Your task to perform on an android device: Clear all items from cart on walmart.com. Add "alienware area 51" to the cart on walmart.com, then select checkout. Image 0: 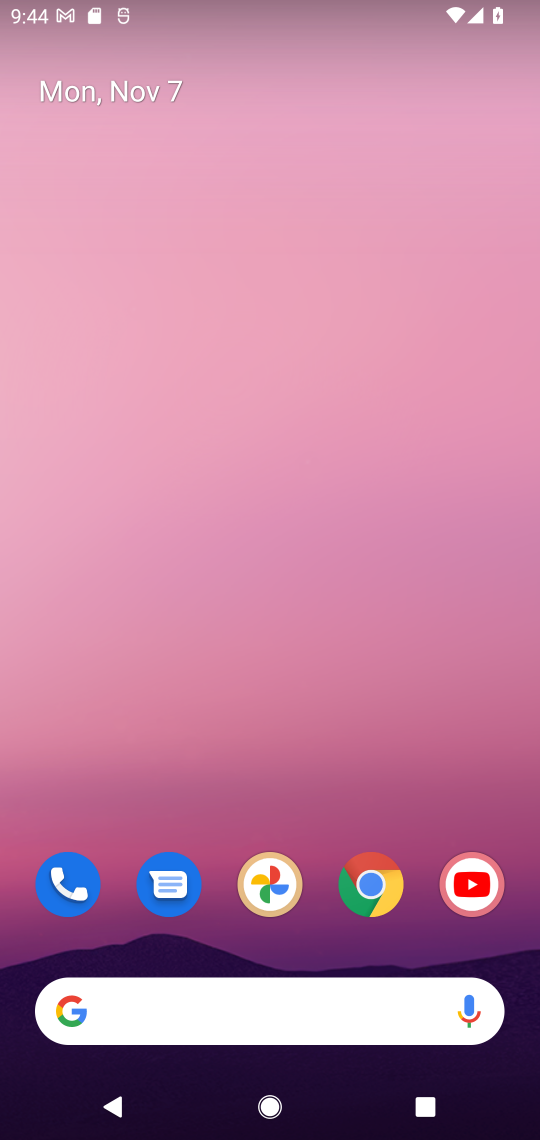
Step 0: click (364, 870)
Your task to perform on an android device: Clear all items from cart on walmart.com. Add "alienware area 51" to the cart on walmart.com, then select checkout. Image 1: 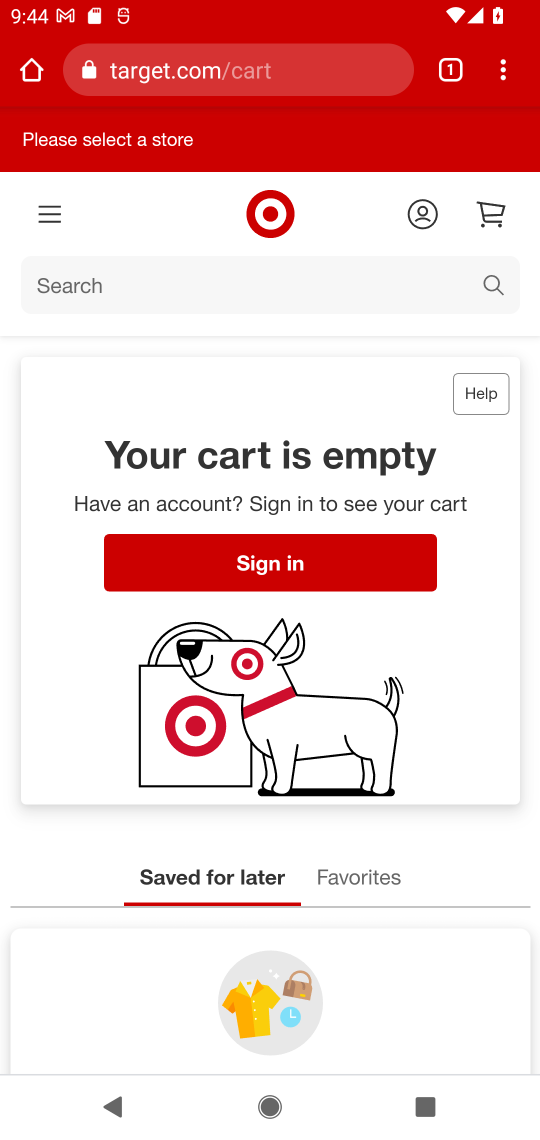
Step 1: click (336, 56)
Your task to perform on an android device: Clear all items from cart on walmart.com. Add "alienware area 51" to the cart on walmart.com, then select checkout. Image 2: 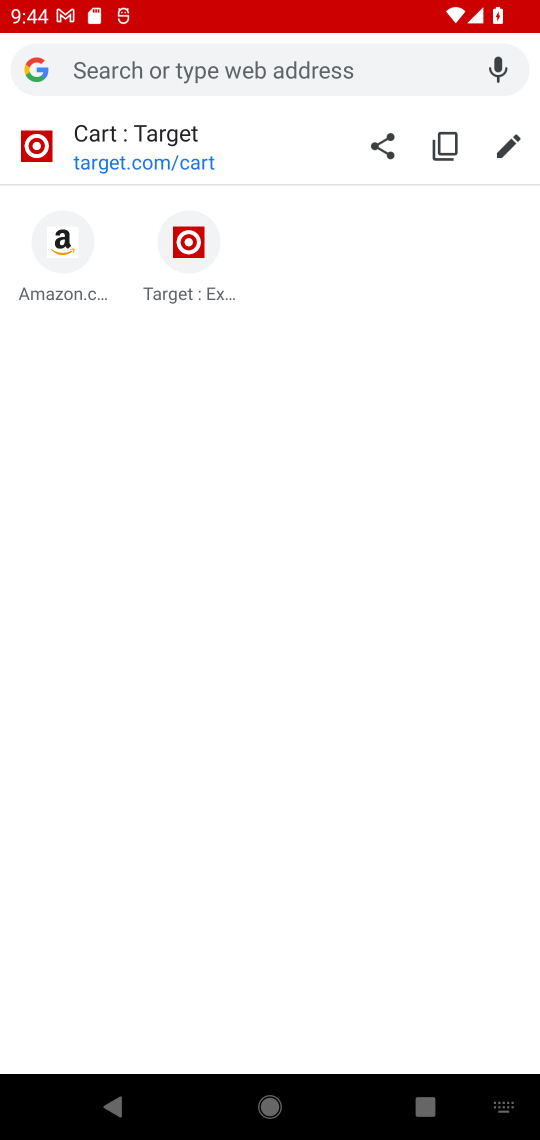
Step 2: type " walmart.com"
Your task to perform on an android device: Clear all items from cart on walmart.com. Add "alienware area 51" to the cart on walmart.com, then select checkout. Image 3: 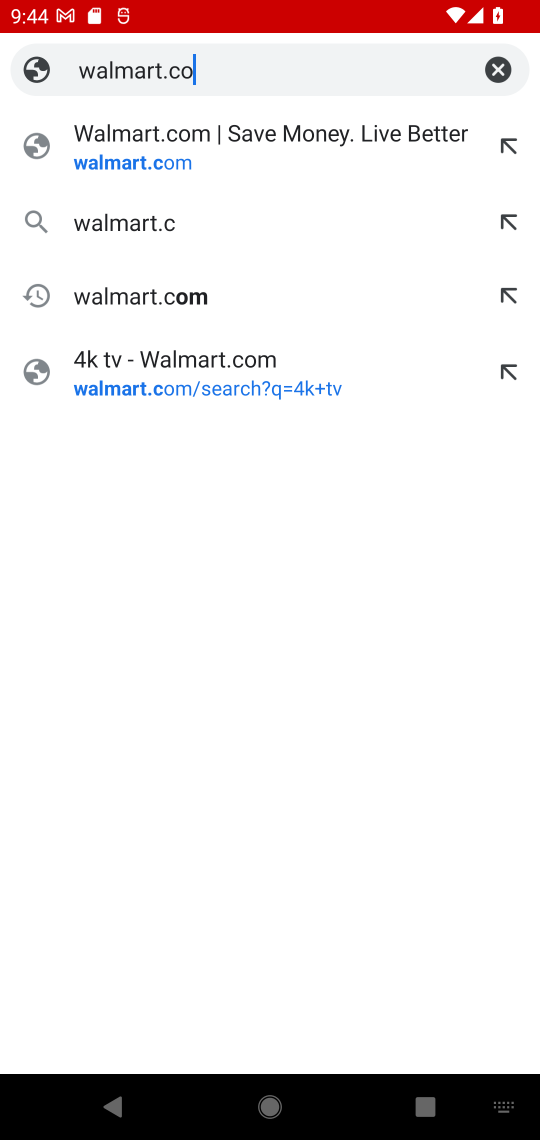
Step 3: press enter
Your task to perform on an android device: Clear all items from cart on walmart.com. Add "alienware area 51" to the cart on walmart.com, then select checkout. Image 4: 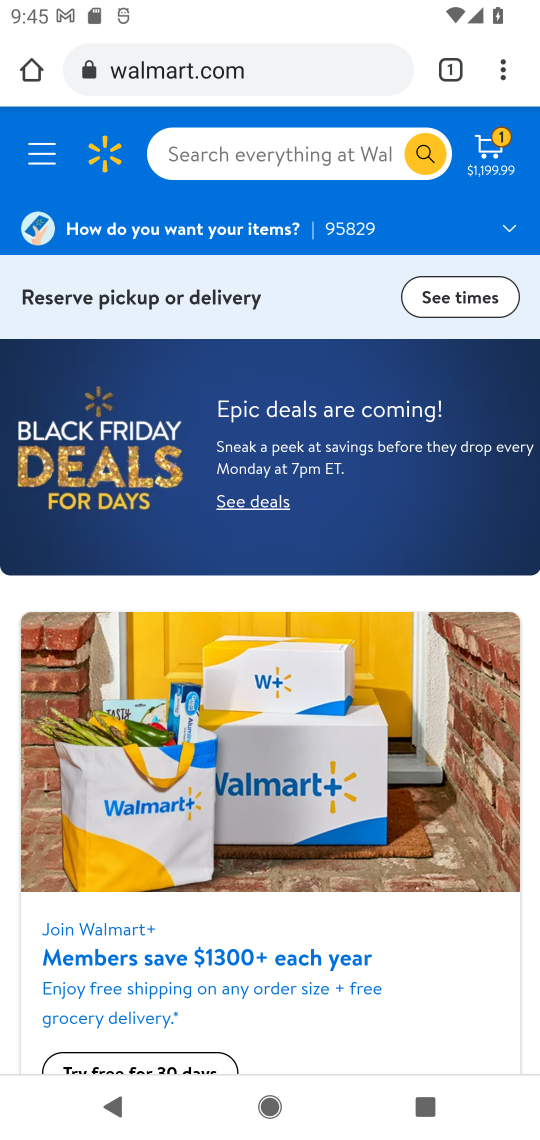
Step 4: click (475, 160)
Your task to perform on an android device: Clear all items from cart on walmart.com. Add "alienware area 51" to the cart on walmart.com, then select checkout. Image 5: 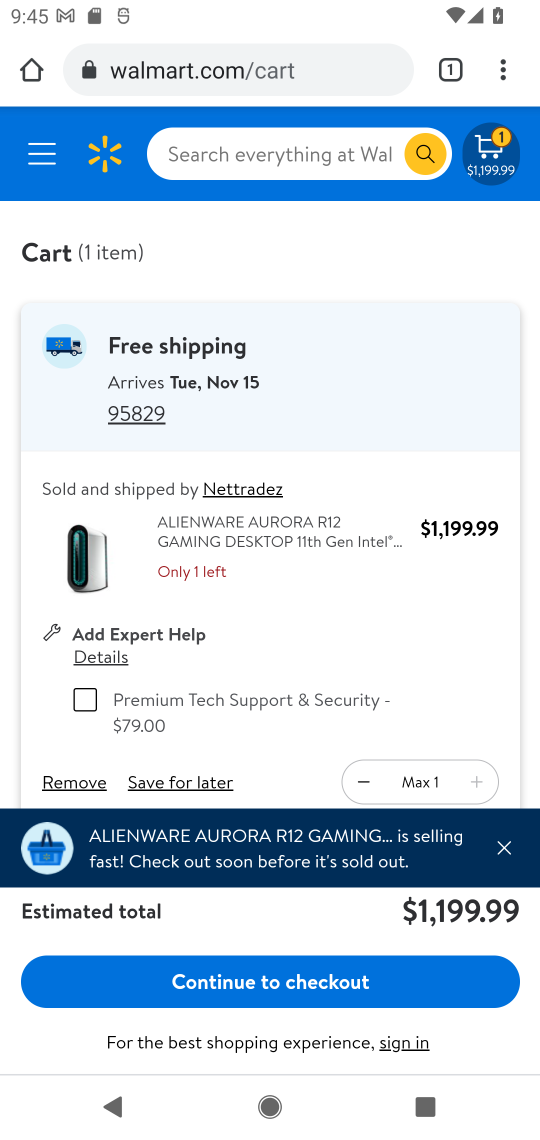
Step 5: click (506, 856)
Your task to perform on an android device: Clear all items from cart on walmart.com. Add "alienware area 51" to the cart on walmart.com, then select checkout. Image 6: 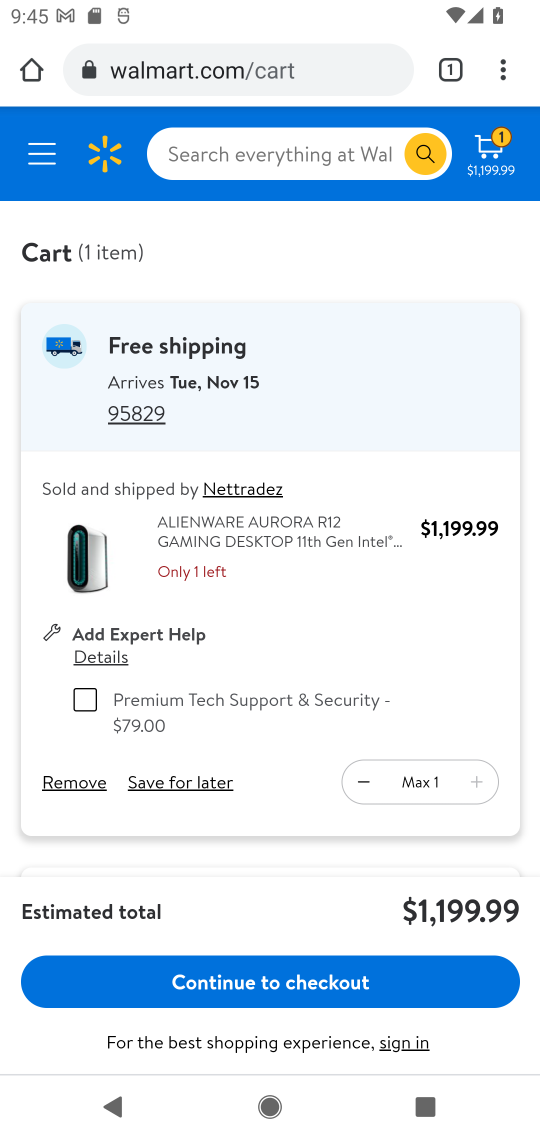
Step 6: click (74, 782)
Your task to perform on an android device: Clear all items from cart on walmart.com. Add "alienware area 51" to the cart on walmart.com, then select checkout. Image 7: 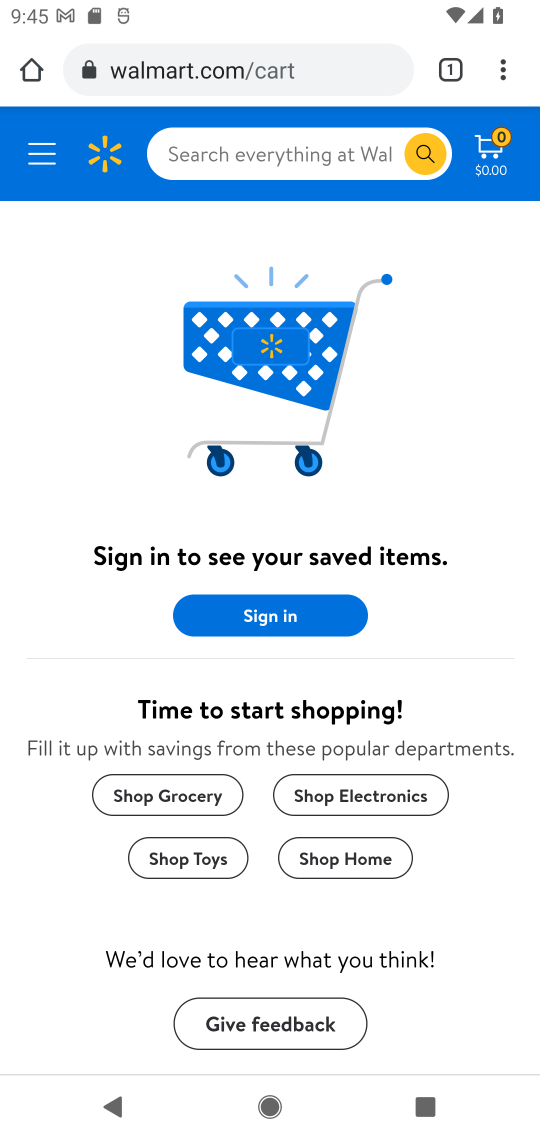
Step 7: click (271, 149)
Your task to perform on an android device: Clear all items from cart on walmart.com. Add "alienware area 51" to the cart on walmart.com, then select checkout. Image 8: 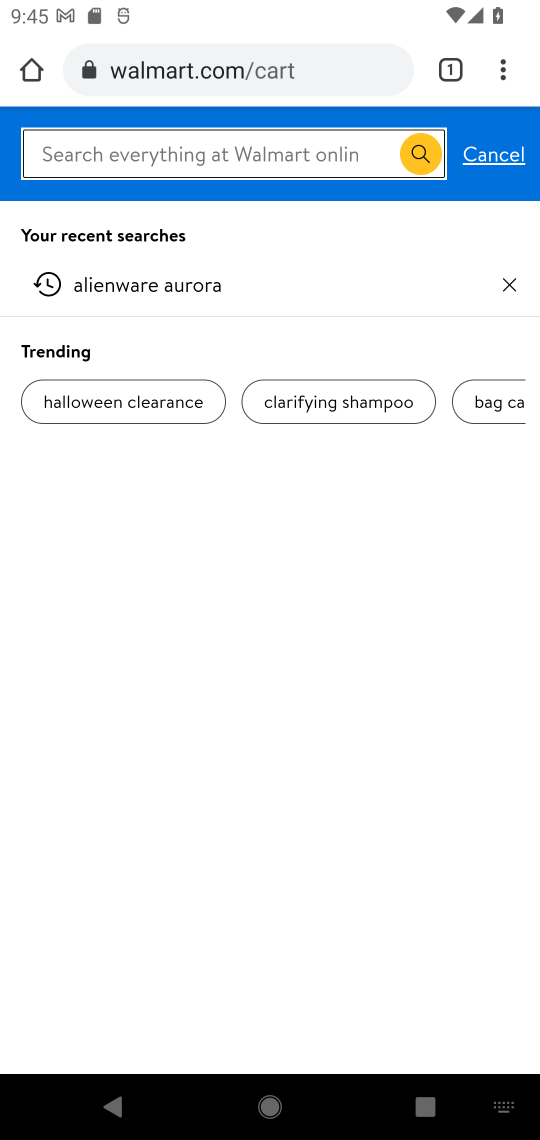
Step 8: type "alienware area 51"
Your task to perform on an android device: Clear all items from cart on walmart.com. Add "alienware area 51" to the cart on walmart.com, then select checkout. Image 9: 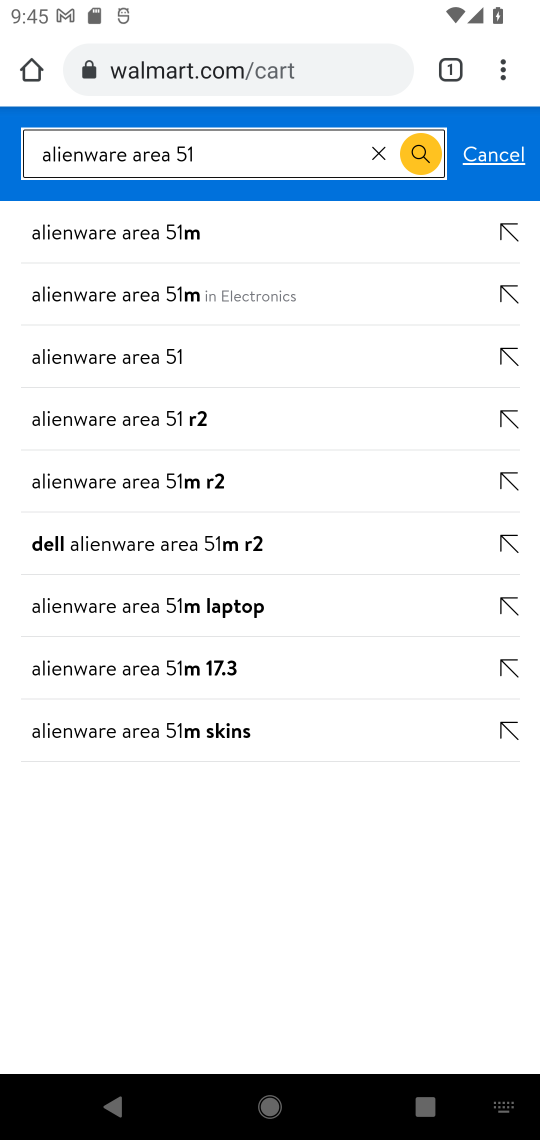
Step 9: click (155, 361)
Your task to perform on an android device: Clear all items from cart on walmart.com. Add "alienware area 51" to the cart on walmart.com, then select checkout. Image 10: 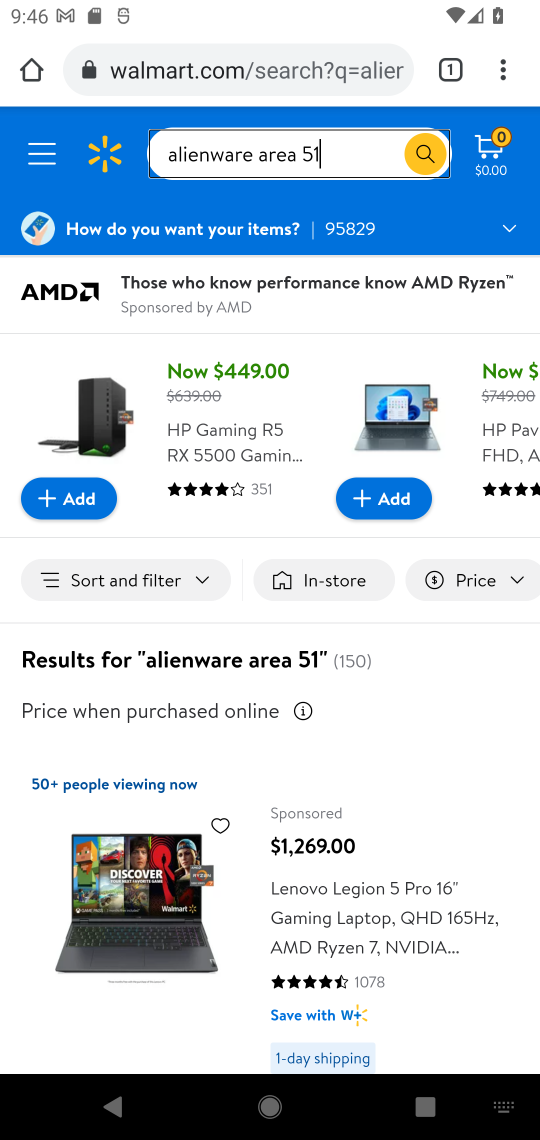
Step 10: drag from (409, 907) to (449, 467)
Your task to perform on an android device: Clear all items from cart on walmart.com. Add "alienware area 51" to the cart on walmart.com, then select checkout. Image 11: 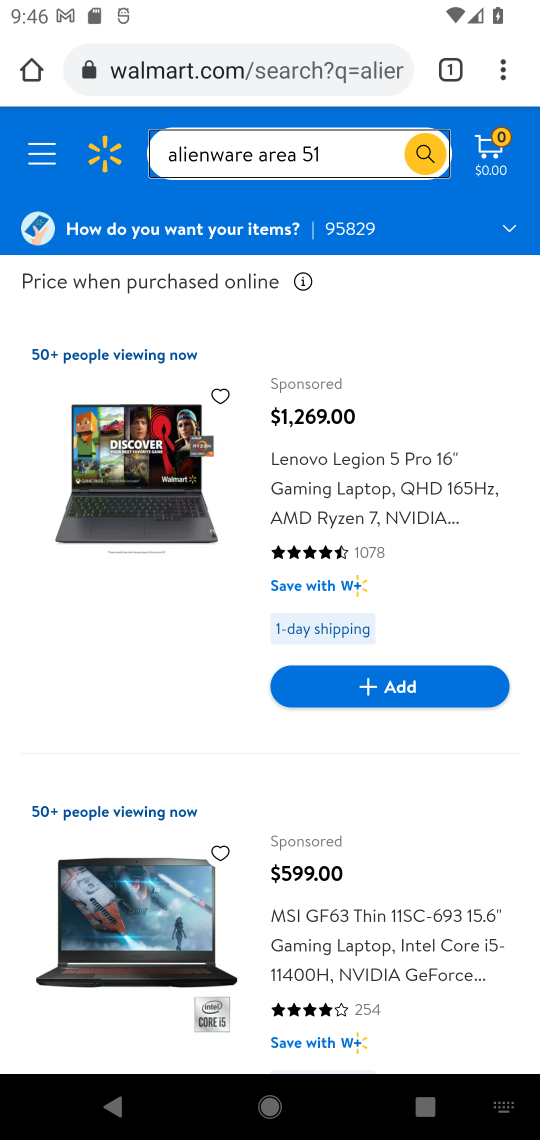
Step 11: drag from (464, 893) to (460, 659)
Your task to perform on an android device: Clear all items from cart on walmart.com. Add "alienware area 51" to the cart on walmart.com, then select checkout. Image 12: 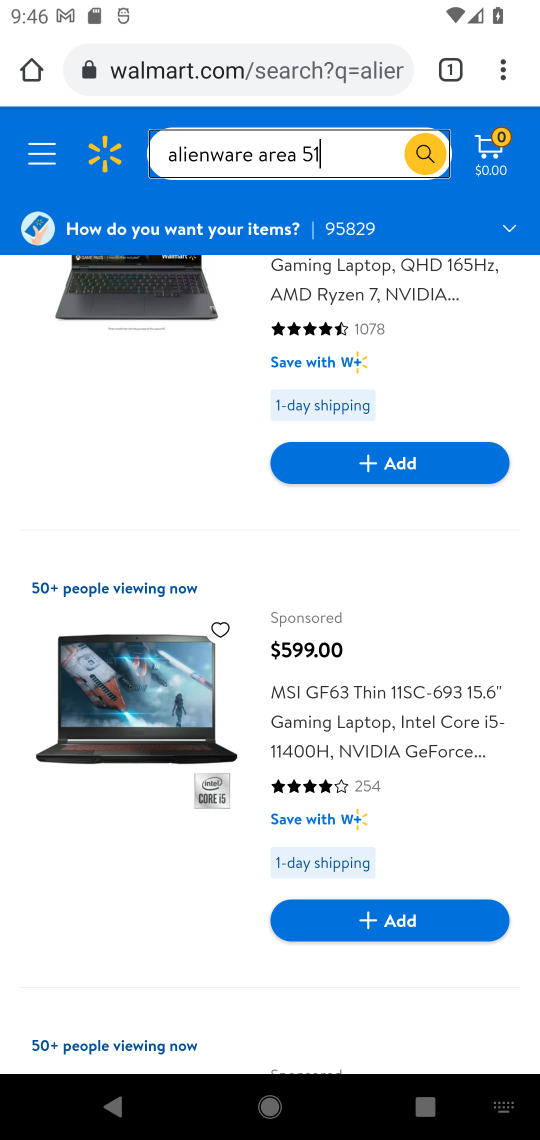
Step 12: drag from (409, 644) to (484, 880)
Your task to perform on an android device: Clear all items from cart on walmart.com. Add "alienware area 51" to the cart on walmart.com, then select checkout. Image 13: 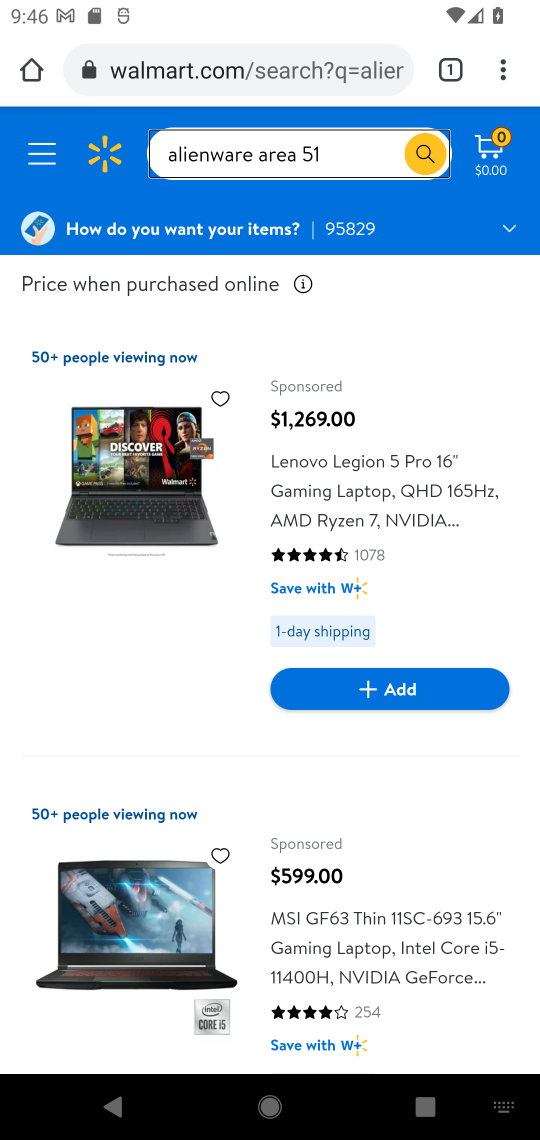
Step 13: drag from (433, 825) to (375, 341)
Your task to perform on an android device: Clear all items from cart on walmart.com. Add "alienware area 51" to the cart on walmart.com, then select checkout. Image 14: 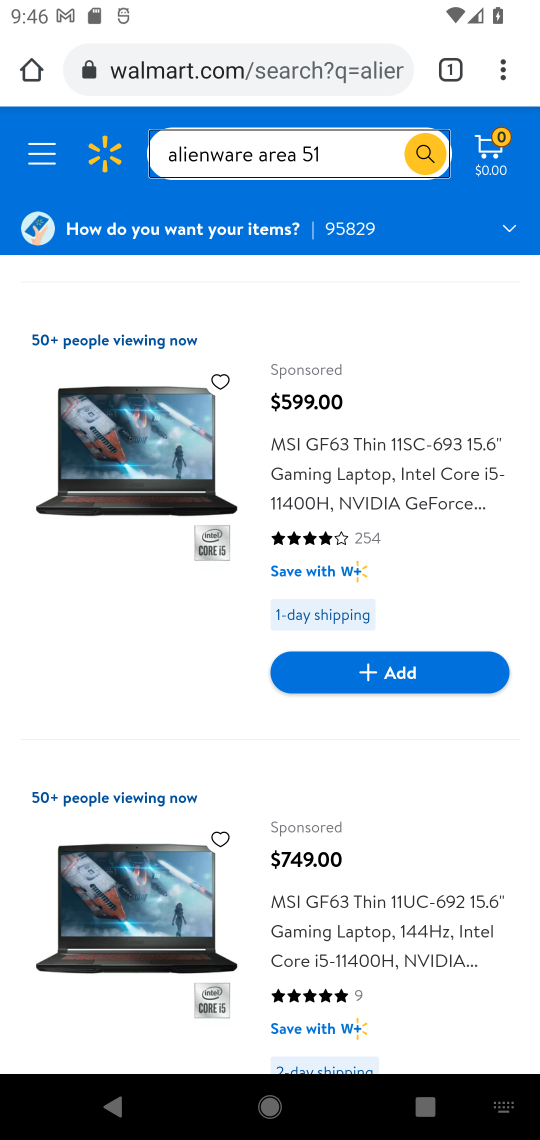
Step 14: drag from (454, 939) to (391, 491)
Your task to perform on an android device: Clear all items from cart on walmart.com. Add "alienware area 51" to the cart on walmart.com, then select checkout. Image 15: 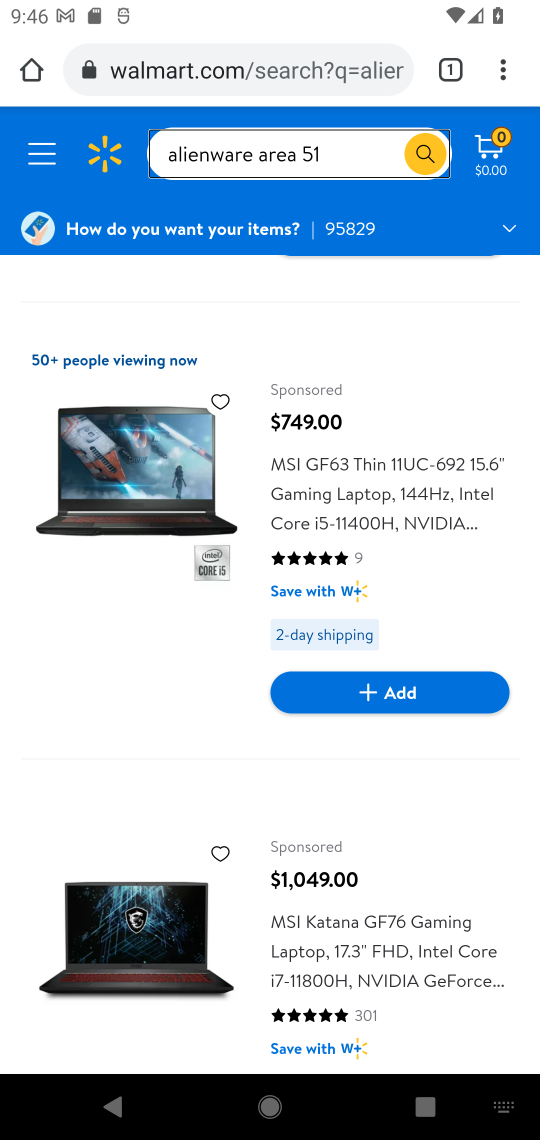
Step 15: drag from (418, 983) to (378, 563)
Your task to perform on an android device: Clear all items from cart on walmart.com. Add "alienware area 51" to the cart on walmart.com, then select checkout. Image 16: 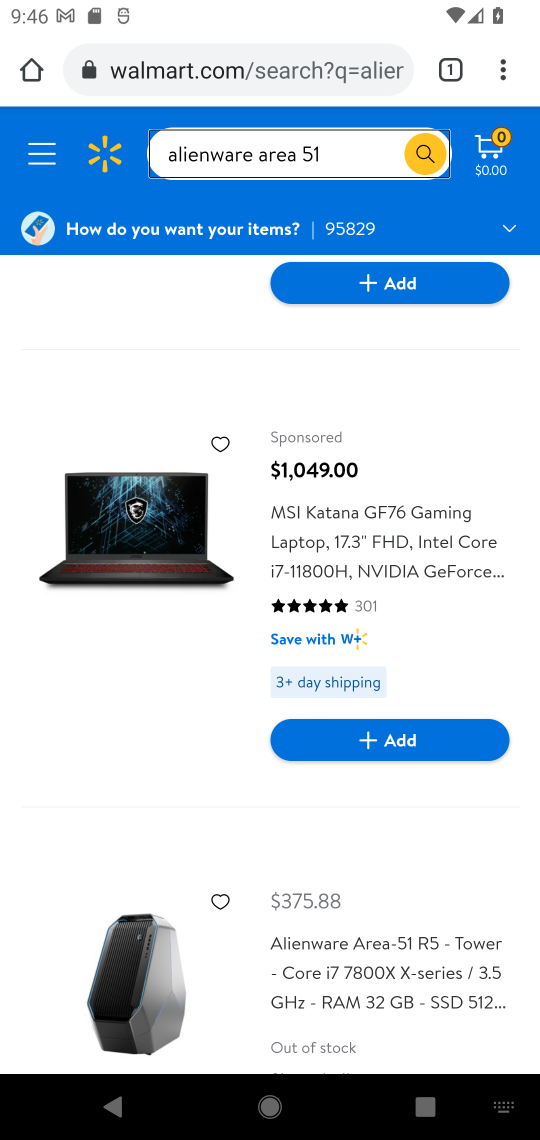
Step 16: click (128, 970)
Your task to perform on an android device: Clear all items from cart on walmart.com. Add "alienware area 51" to the cart on walmart.com, then select checkout. Image 17: 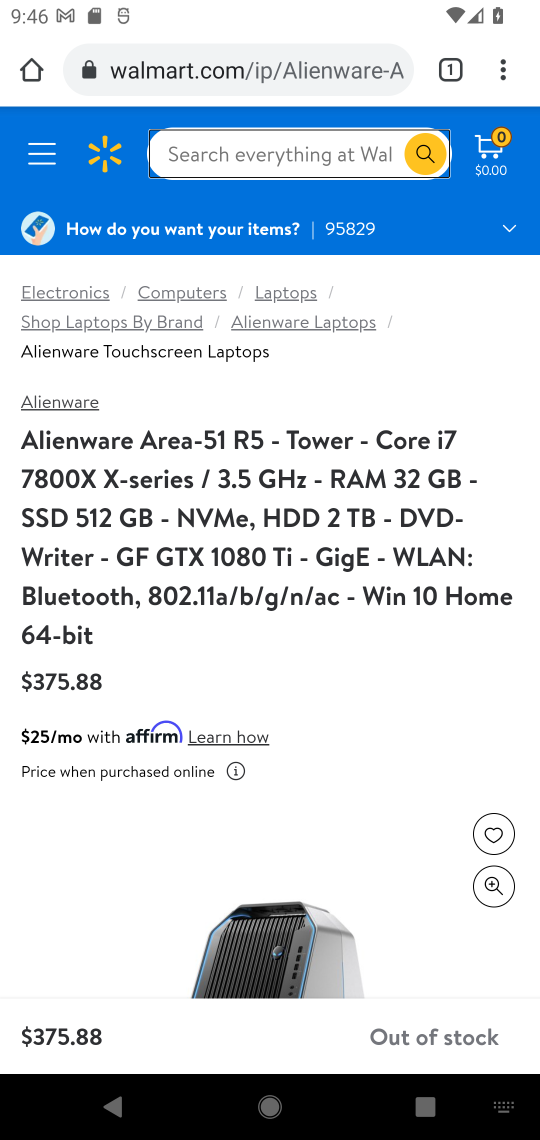
Step 17: drag from (404, 763) to (360, 336)
Your task to perform on an android device: Clear all items from cart on walmart.com. Add "alienware area 51" to the cart on walmart.com, then select checkout. Image 18: 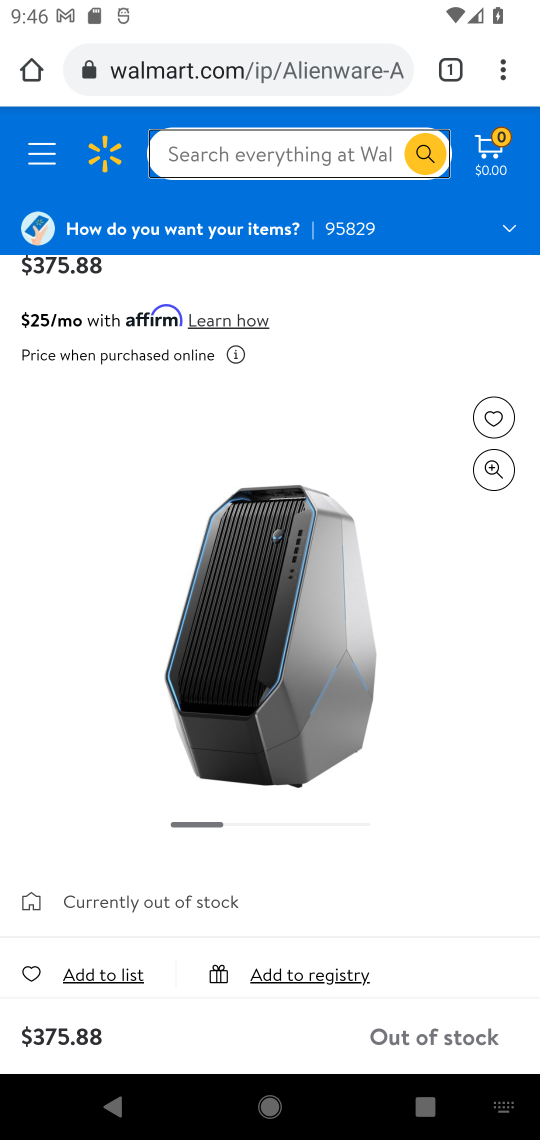
Step 18: drag from (376, 865) to (344, 396)
Your task to perform on an android device: Clear all items from cart on walmart.com. Add "alienware area 51" to the cart on walmart.com, then select checkout. Image 19: 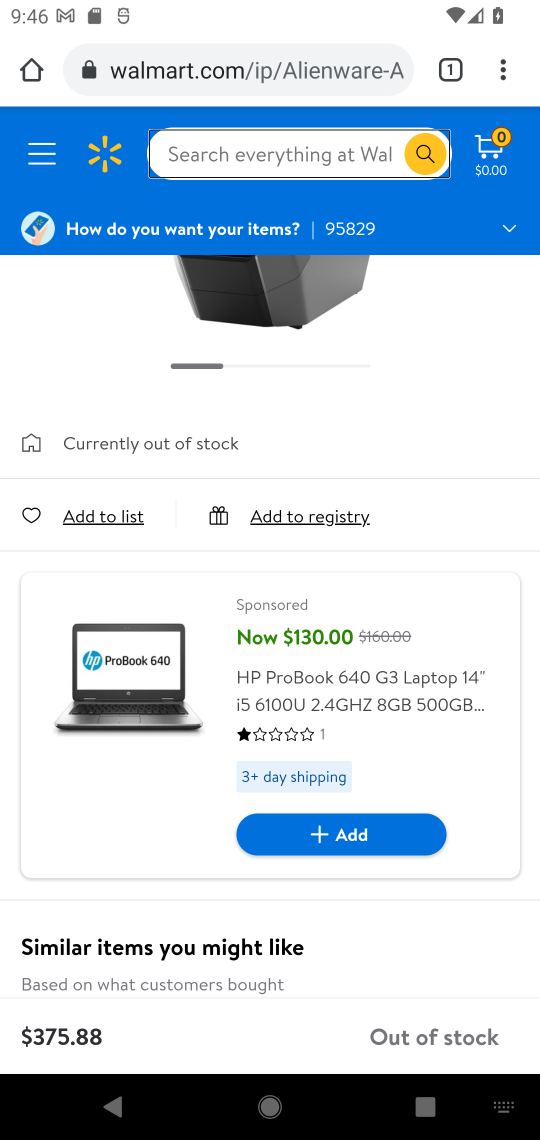
Step 19: drag from (479, 741) to (480, 460)
Your task to perform on an android device: Clear all items from cart on walmart.com. Add "alienware area 51" to the cart on walmart.com, then select checkout. Image 20: 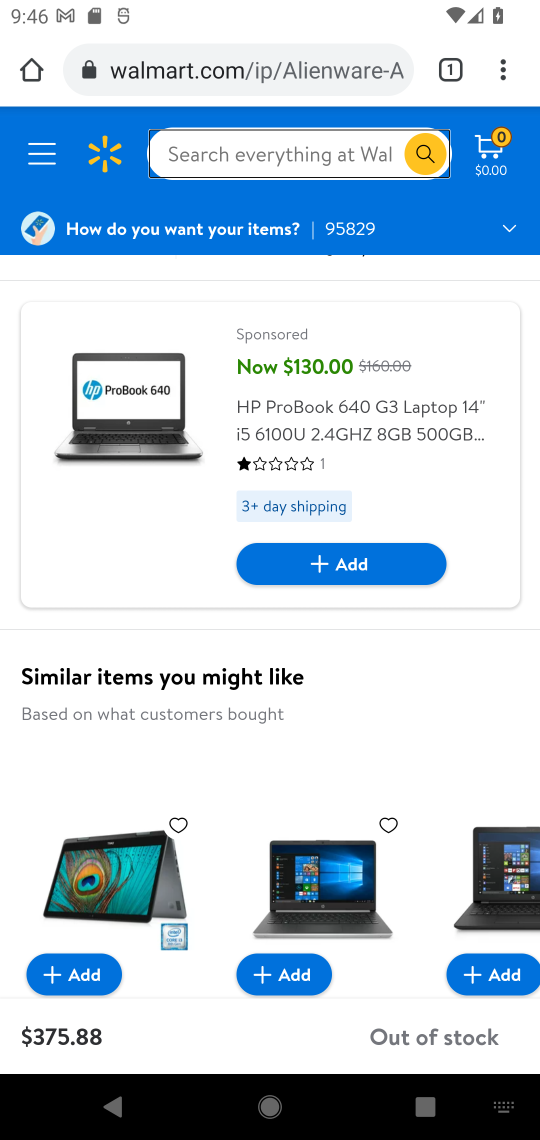
Step 20: press back button
Your task to perform on an android device: Clear all items from cart on walmart.com. Add "alienware area 51" to the cart on walmart.com, then select checkout. Image 21: 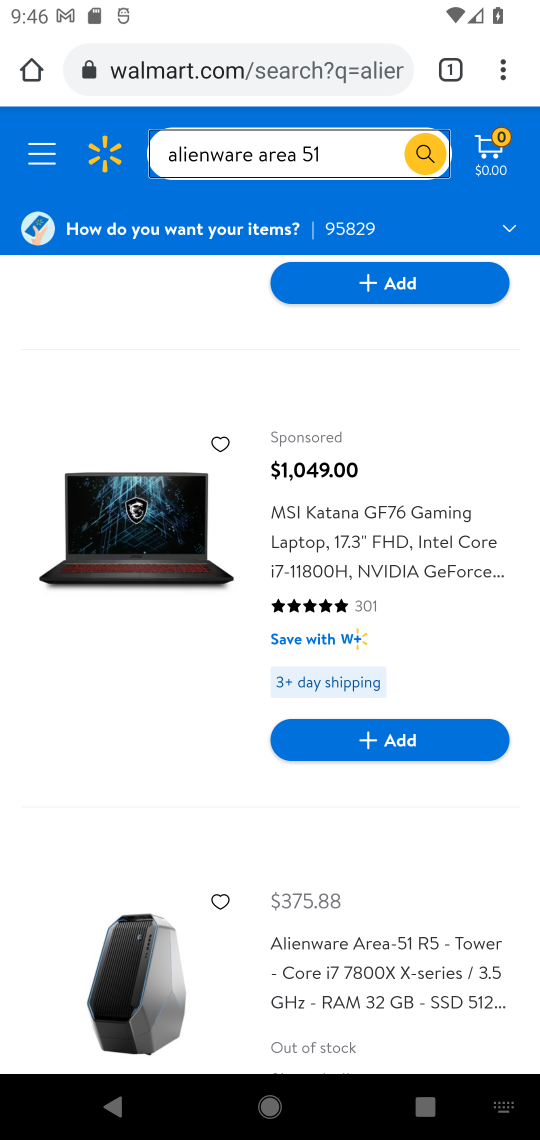
Step 21: drag from (387, 913) to (387, 548)
Your task to perform on an android device: Clear all items from cart on walmart.com. Add "alienware area 51" to the cart on walmart.com, then select checkout. Image 22: 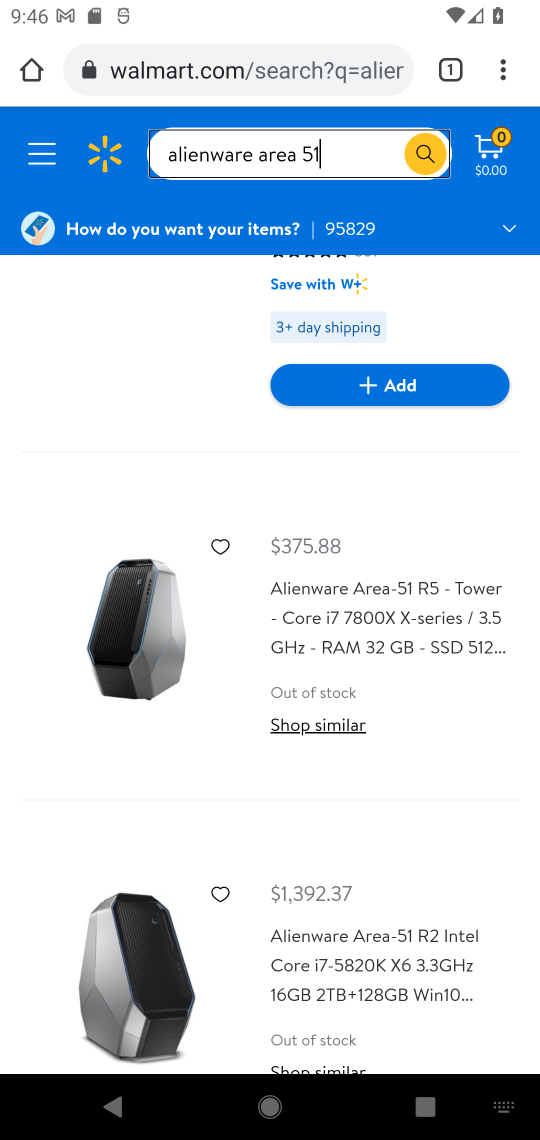
Step 22: click (146, 593)
Your task to perform on an android device: Clear all items from cart on walmart.com. Add "alienware area 51" to the cart on walmart.com, then select checkout. Image 23: 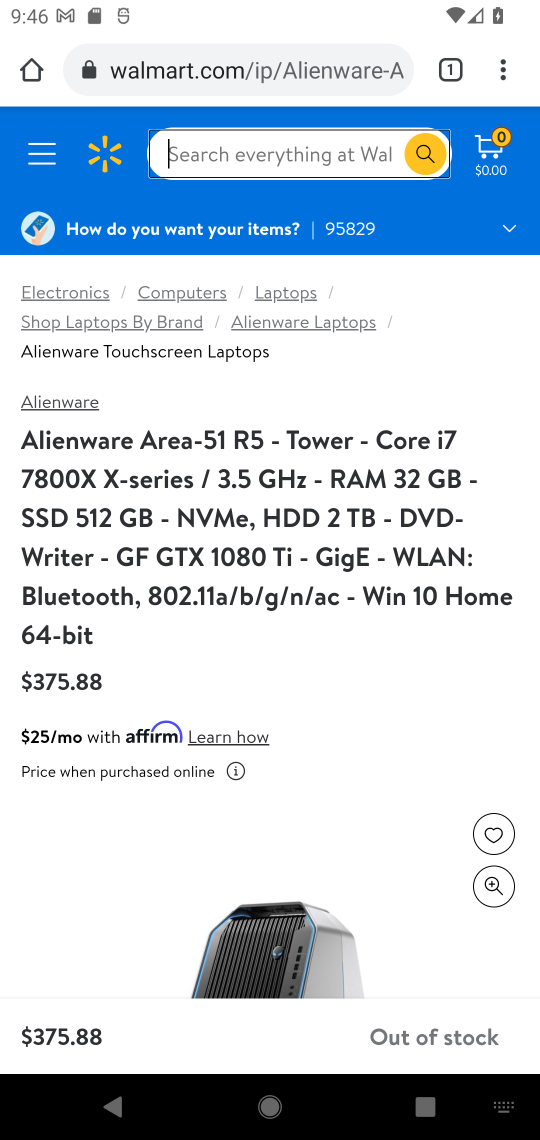
Step 23: drag from (387, 766) to (407, 378)
Your task to perform on an android device: Clear all items from cart on walmart.com. Add "alienware area 51" to the cart on walmart.com, then select checkout. Image 24: 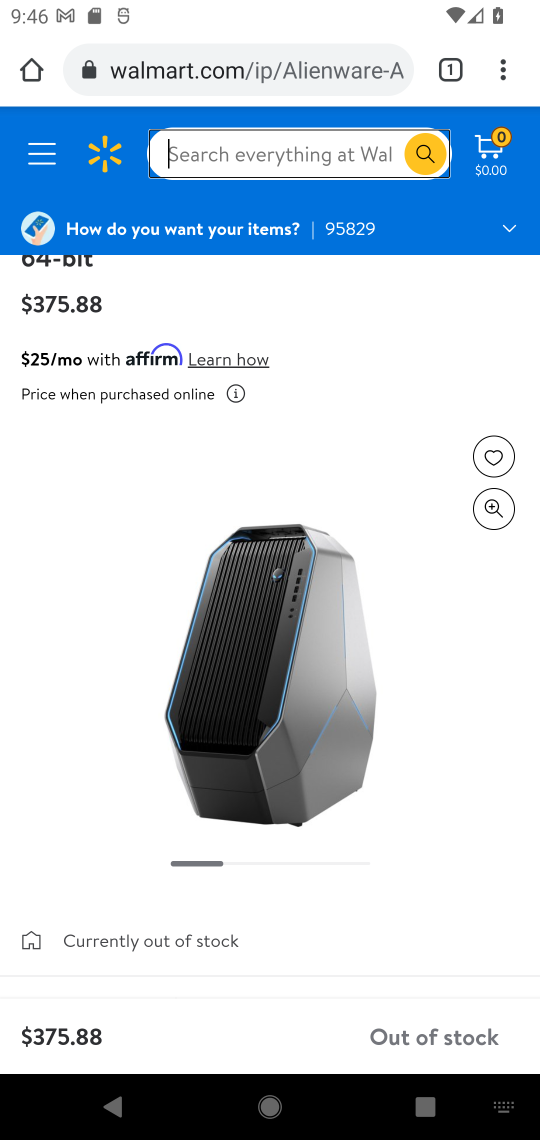
Step 24: drag from (405, 751) to (409, 326)
Your task to perform on an android device: Clear all items from cart on walmart.com. Add "alienware area 51" to the cart on walmart.com, then select checkout. Image 25: 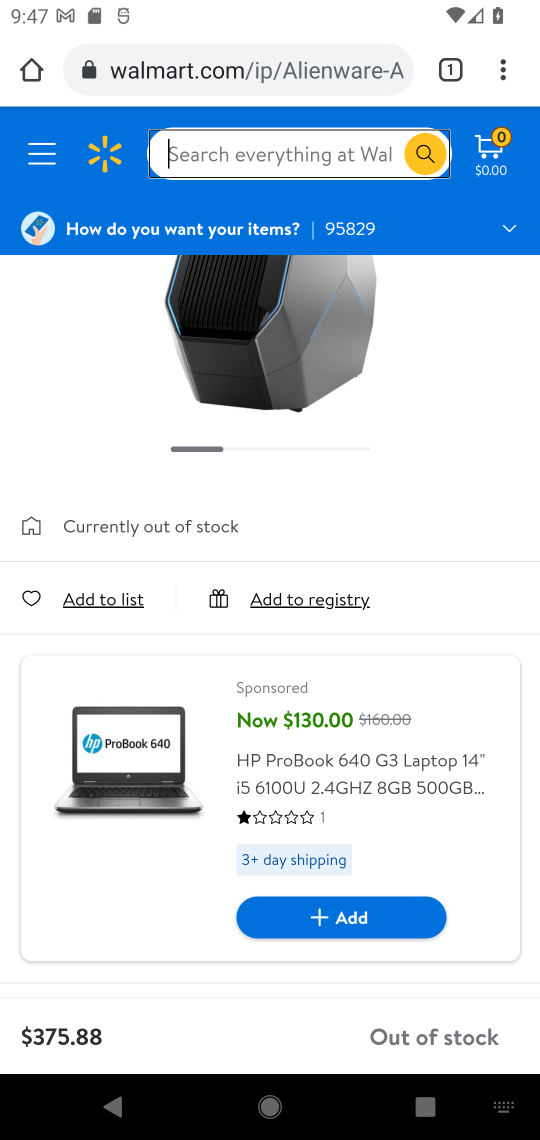
Step 25: press back button
Your task to perform on an android device: Clear all items from cart on walmart.com. Add "alienware area 51" to the cart on walmart.com, then select checkout. Image 26: 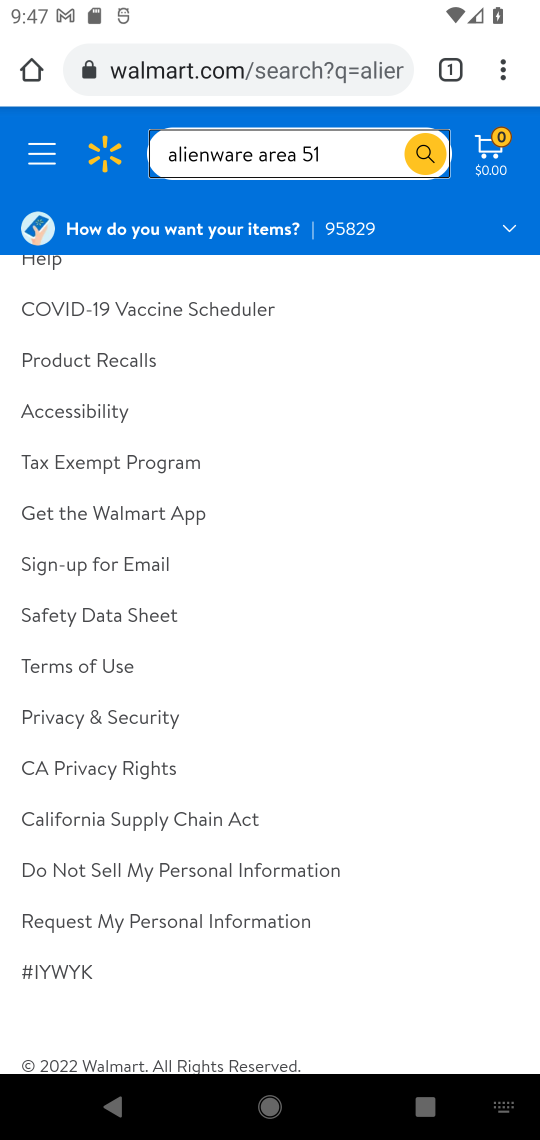
Step 26: click (345, 155)
Your task to perform on an android device: Clear all items from cart on walmart.com. Add "alienware area 51" to the cart on walmart.com, then select checkout. Image 27: 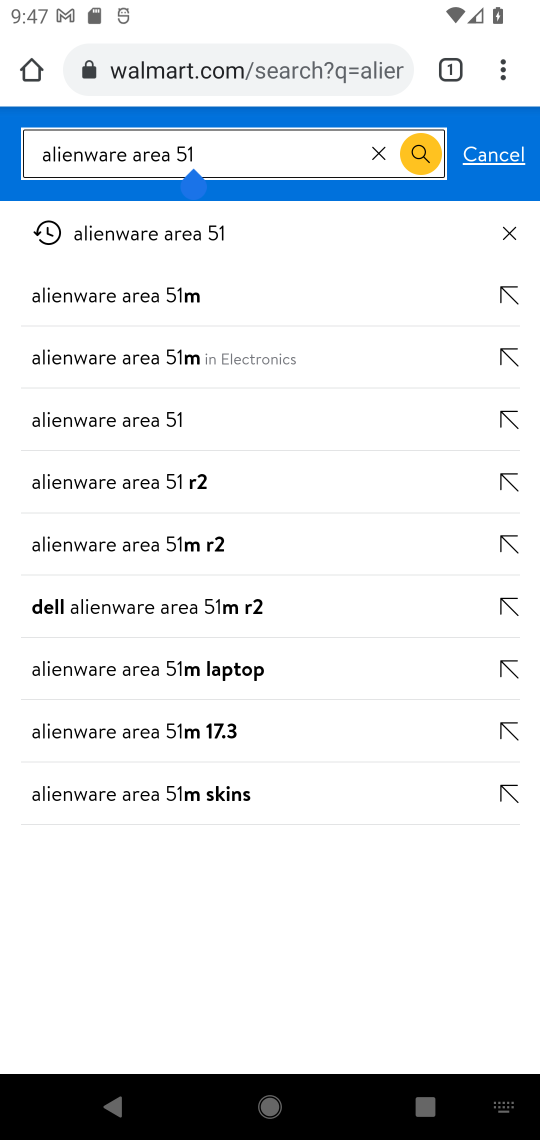
Step 27: click (125, 420)
Your task to perform on an android device: Clear all items from cart on walmart.com. Add "alienware area 51" to the cart on walmart.com, then select checkout. Image 28: 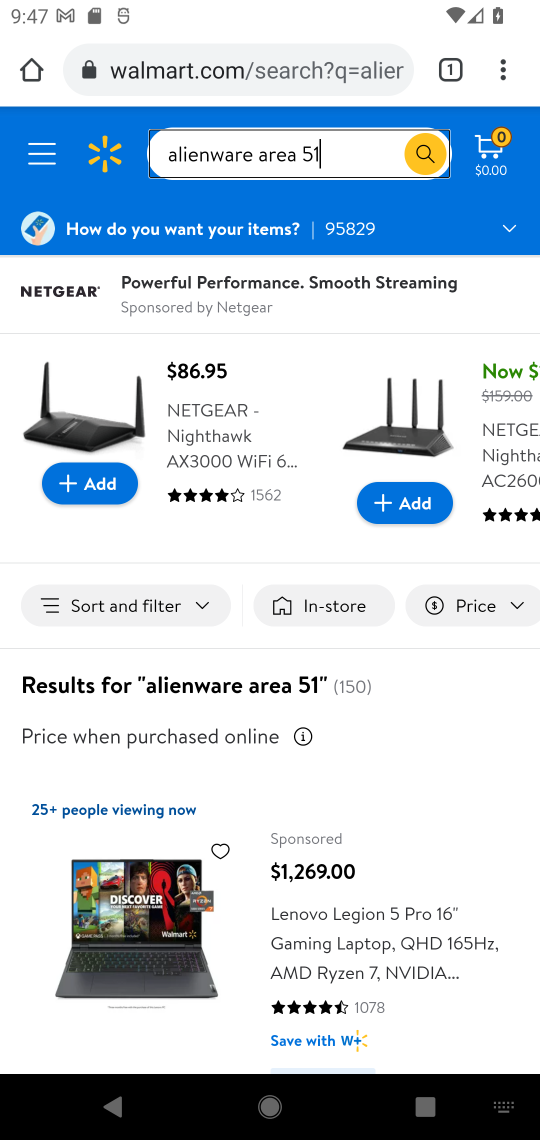
Step 28: drag from (213, 918) to (269, 326)
Your task to perform on an android device: Clear all items from cart on walmart.com. Add "alienware area 51" to the cart on walmart.com, then select checkout. Image 29: 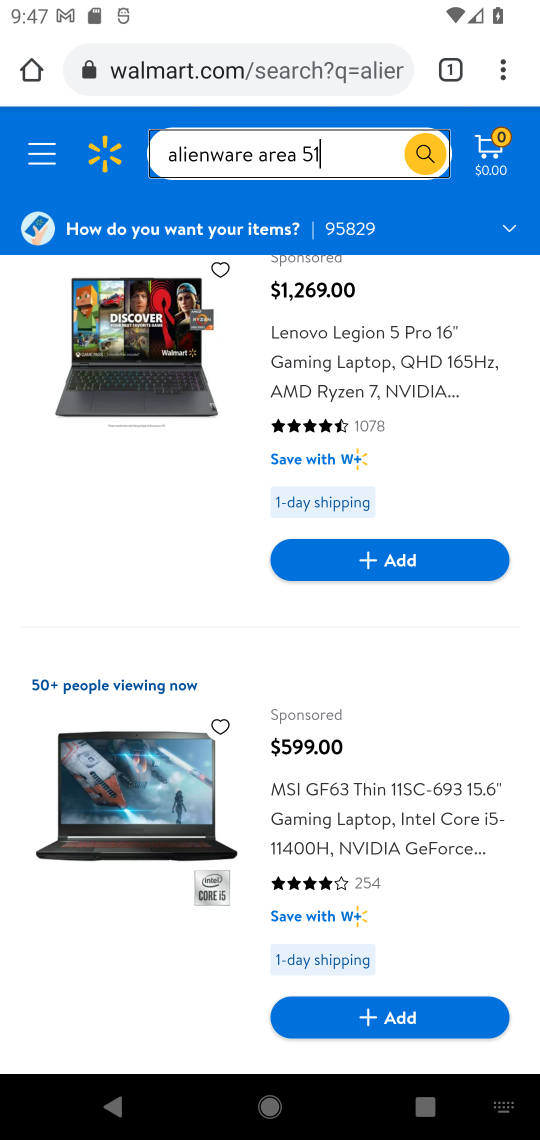
Step 29: drag from (383, 728) to (383, 316)
Your task to perform on an android device: Clear all items from cart on walmart.com. Add "alienware area 51" to the cart on walmart.com, then select checkout. Image 30: 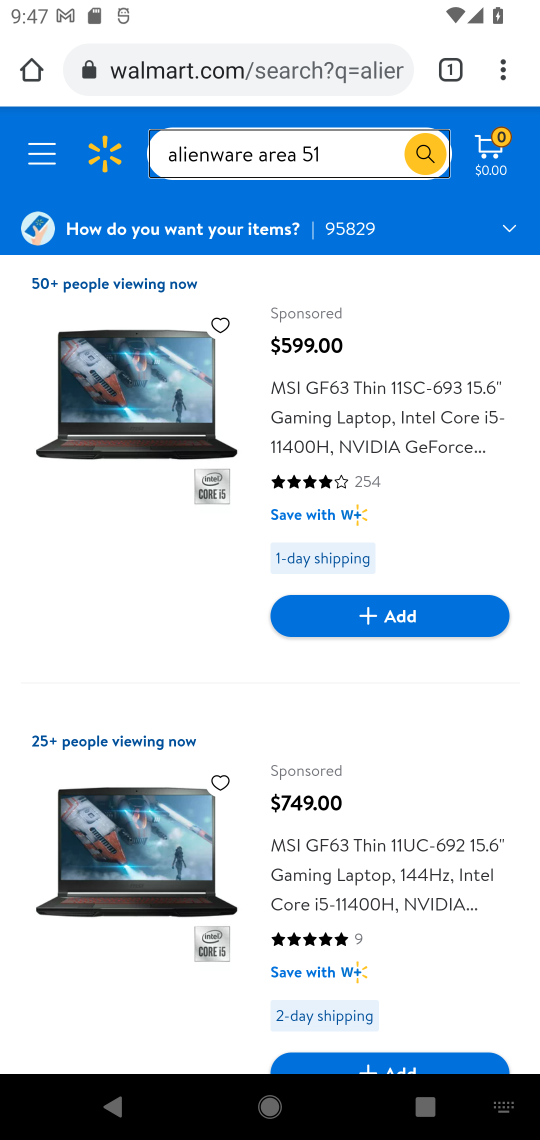
Step 30: drag from (467, 809) to (467, 445)
Your task to perform on an android device: Clear all items from cart on walmart.com. Add "alienware area 51" to the cart on walmart.com, then select checkout. Image 31: 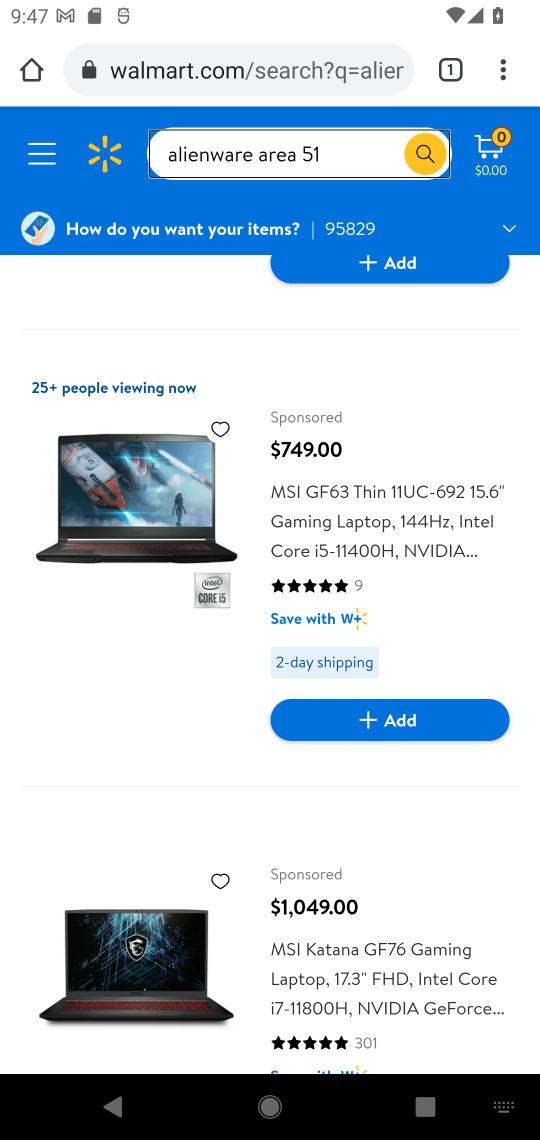
Step 31: drag from (444, 899) to (450, 501)
Your task to perform on an android device: Clear all items from cart on walmart.com. Add "alienware area 51" to the cart on walmart.com, then select checkout. Image 32: 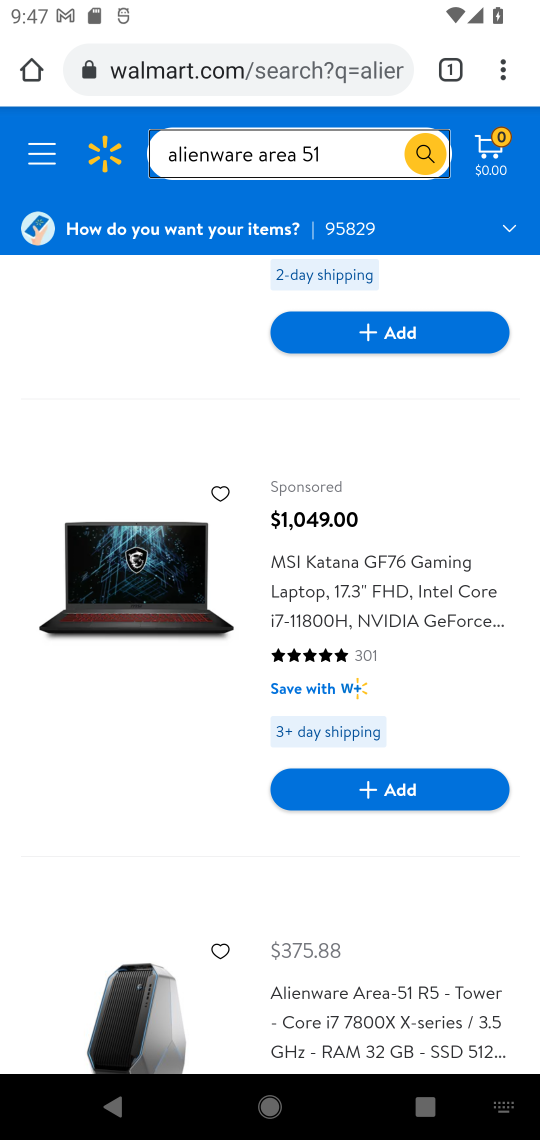
Step 32: drag from (443, 853) to (430, 481)
Your task to perform on an android device: Clear all items from cart on walmart.com. Add "alienware area 51" to the cart on walmart.com, then select checkout. Image 33: 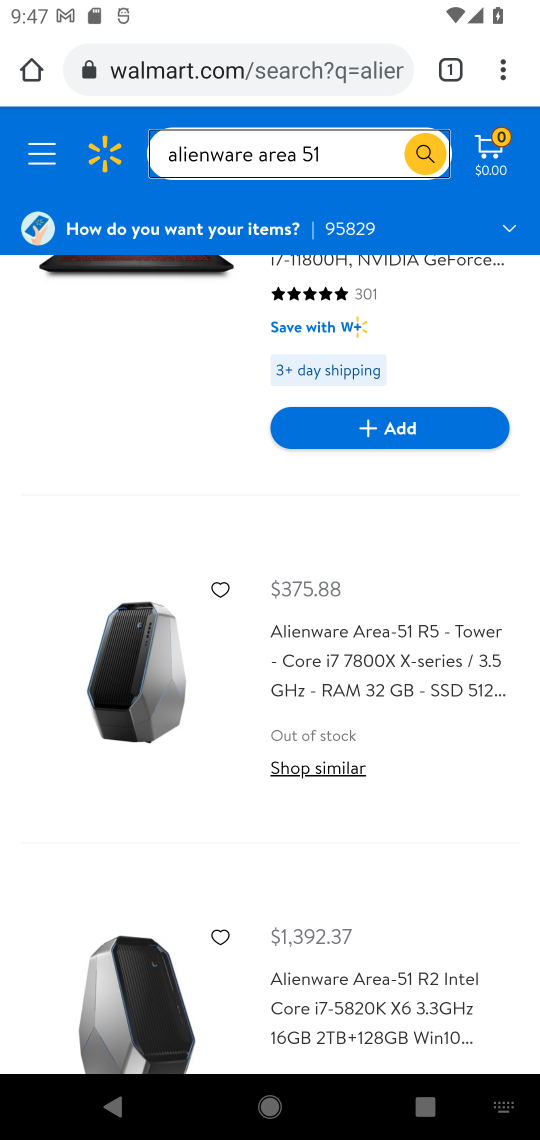
Step 33: drag from (448, 875) to (497, 532)
Your task to perform on an android device: Clear all items from cart on walmart.com. Add "alienware area 51" to the cart on walmart.com, then select checkout. Image 34: 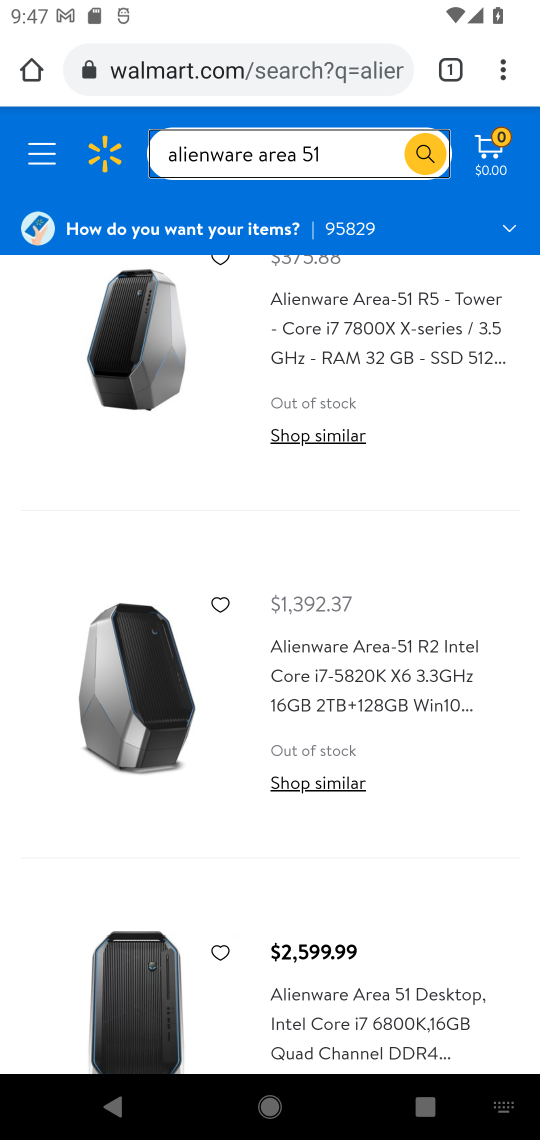
Step 34: click (154, 714)
Your task to perform on an android device: Clear all items from cart on walmart.com. Add "alienware area 51" to the cart on walmart.com, then select checkout. Image 35: 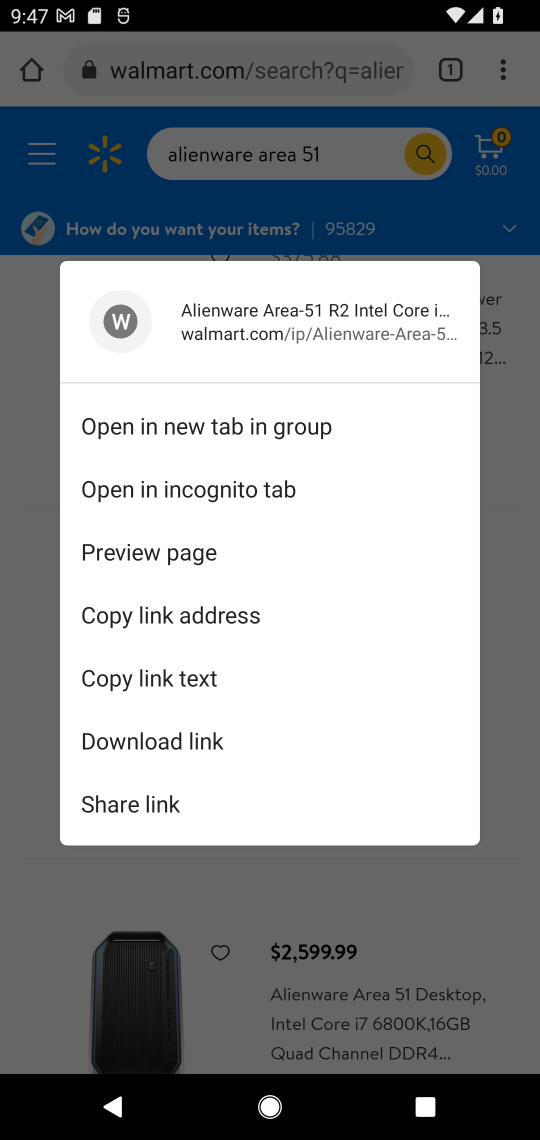
Step 35: click (111, 949)
Your task to perform on an android device: Clear all items from cart on walmart.com. Add "alienware area 51" to the cart on walmart.com, then select checkout. Image 36: 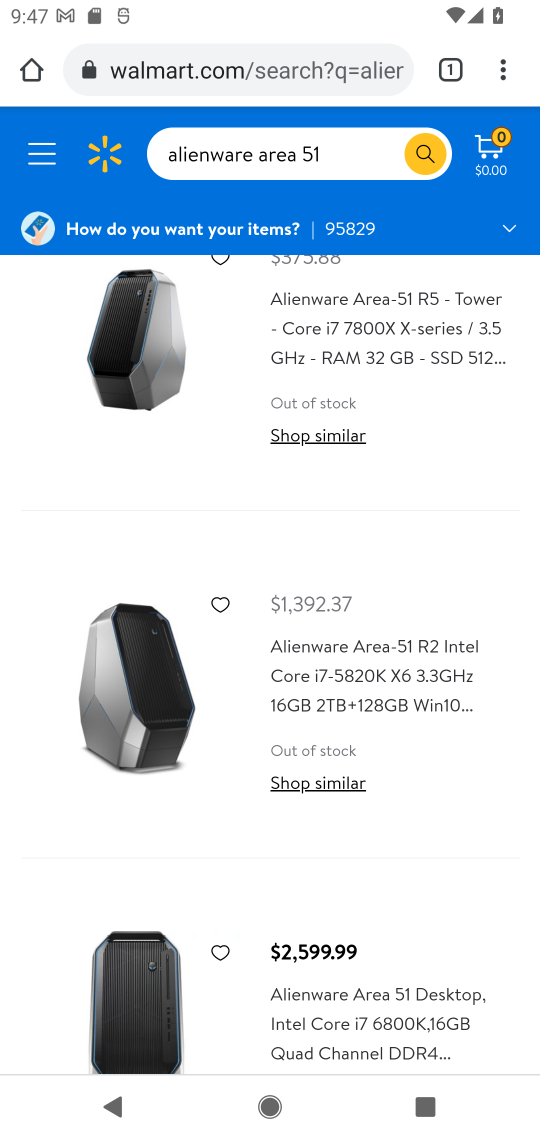
Step 36: click (111, 743)
Your task to perform on an android device: Clear all items from cart on walmart.com. Add "alienware area 51" to the cart on walmart.com, then select checkout. Image 37: 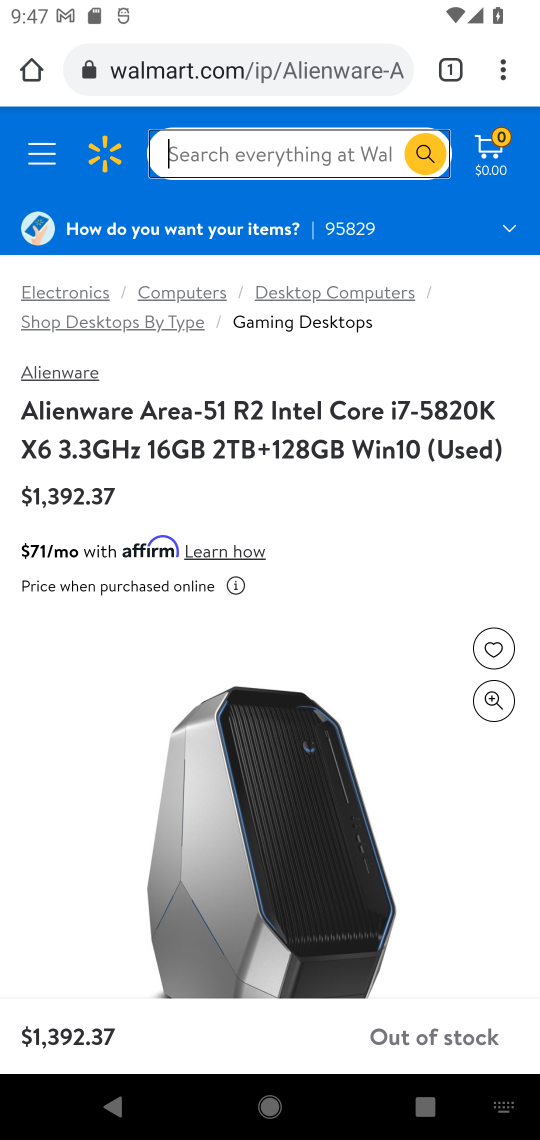
Step 37: press back button
Your task to perform on an android device: Clear all items from cart on walmart.com. Add "alienware area 51" to the cart on walmart.com, then select checkout. Image 38: 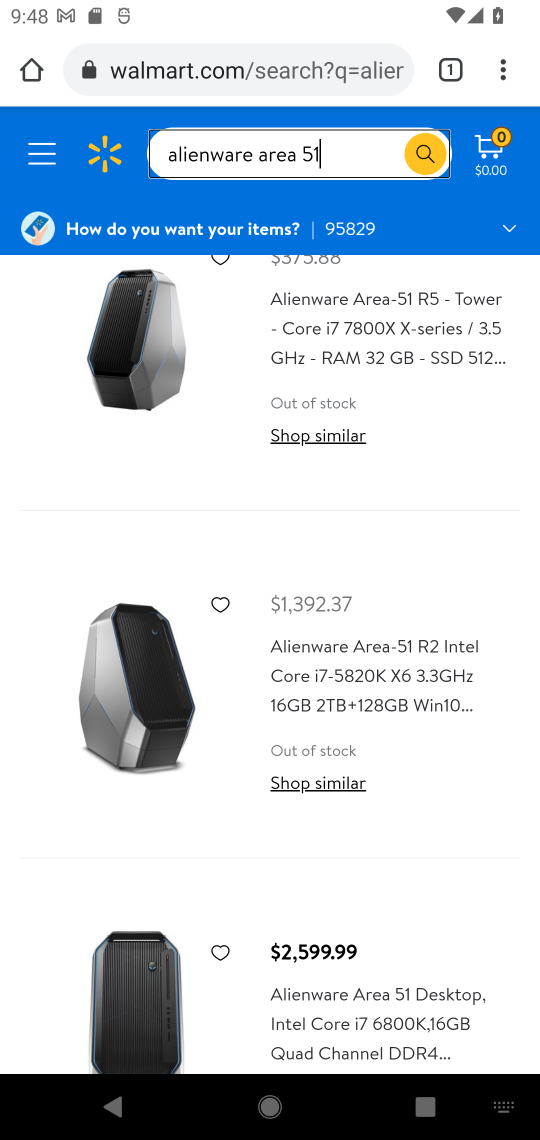
Step 38: click (154, 1022)
Your task to perform on an android device: Clear all items from cart on walmart.com. Add "alienware area 51" to the cart on walmart.com, then select checkout. Image 39: 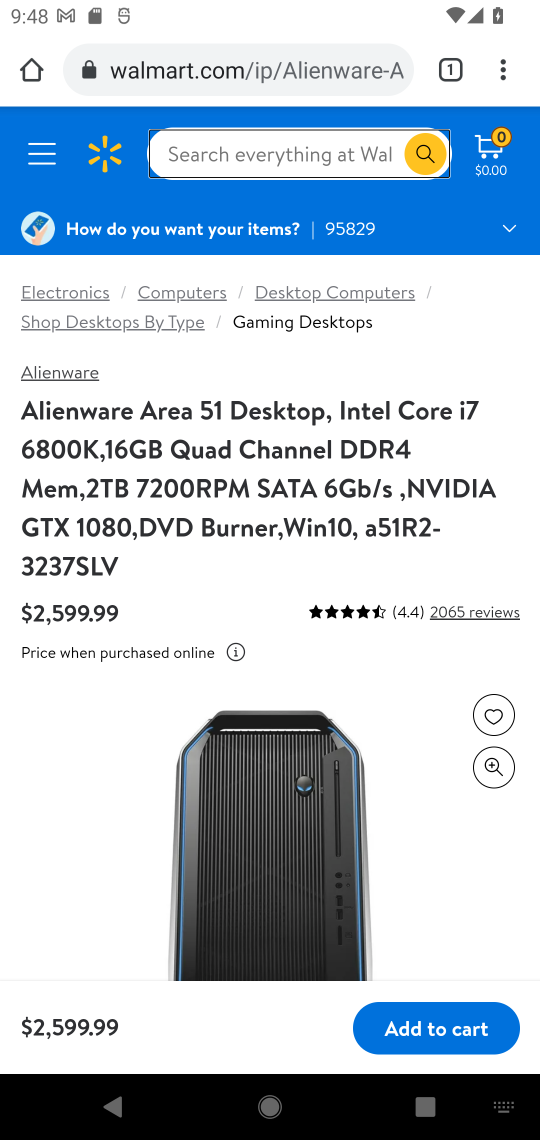
Step 39: click (438, 1028)
Your task to perform on an android device: Clear all items from cart on walmart.com. Add "alienware area 51" to the cart on walmart.com, then select checkout. Image 40: 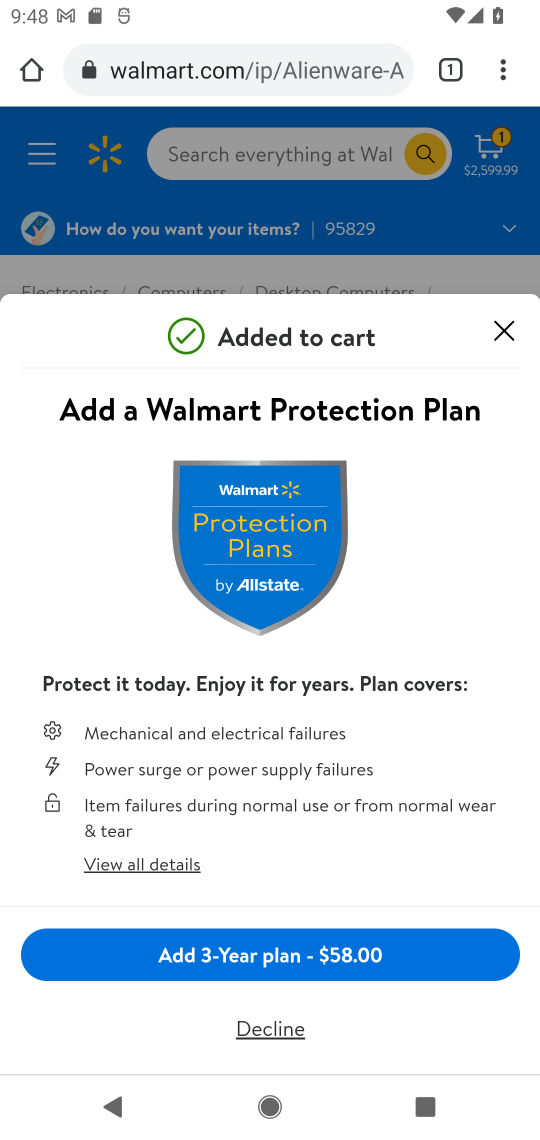
Step 40: click (511, 330)
Your task to perform on an android device: Clear all items from cart on walmart.com. Add "alienware area 51" to the cart on walmart.com, then select checkout. Image 41: 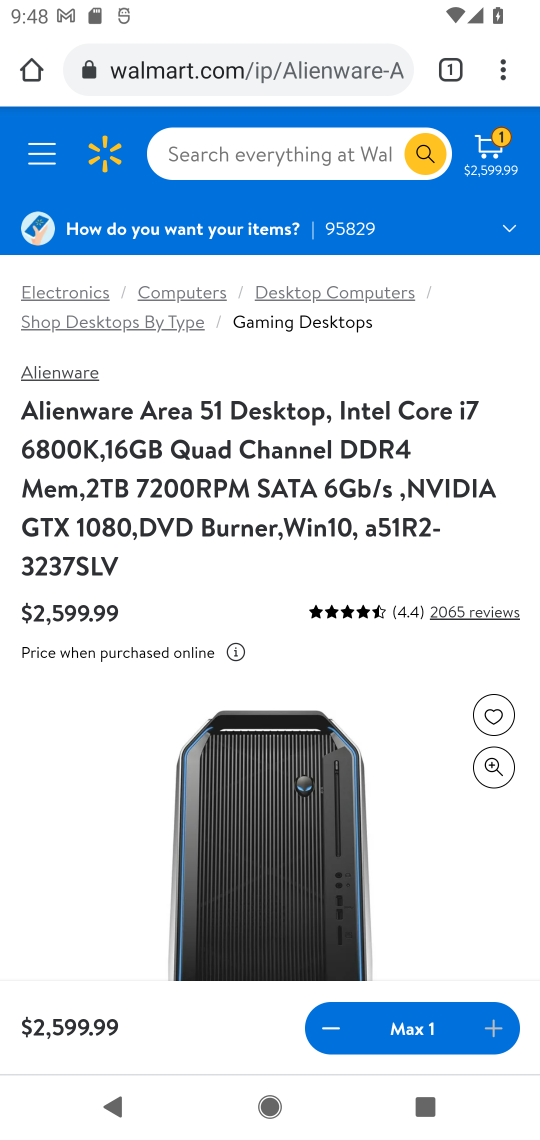
Step 41: click (498, 149)
Your task to perform on an android device: Clear all items from cart on walmart.com. Add "alienware area 51" to the cart on walmart.com, then select checkout. Image 42: 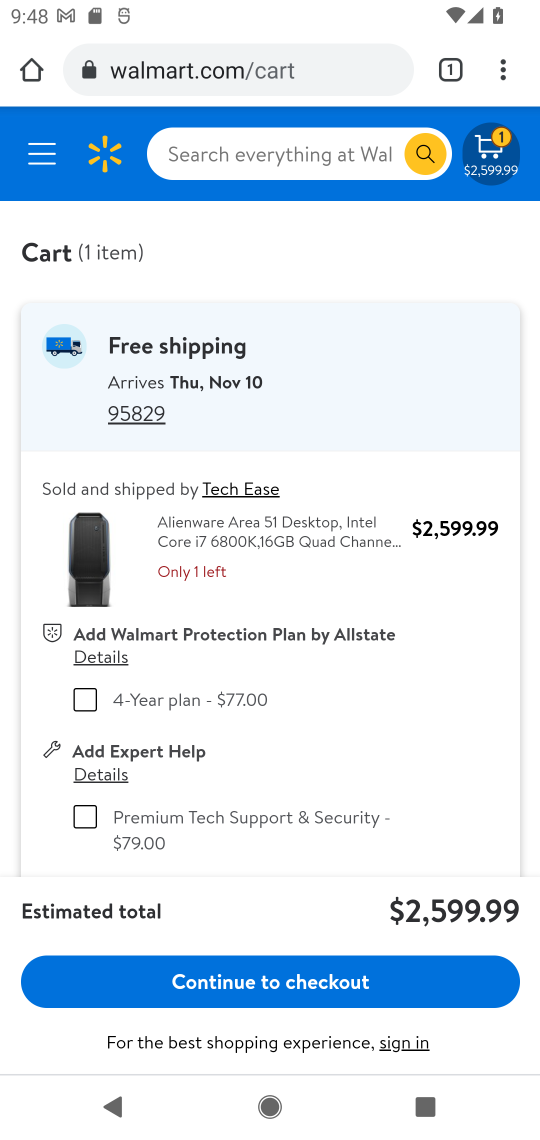
Step 42: click (335, 977)
Your task to perform on an android device: Clear all items from cart on walmart.com. Add "alienware area 51" to the cart on walmart.com, then select checkout. Image 43: 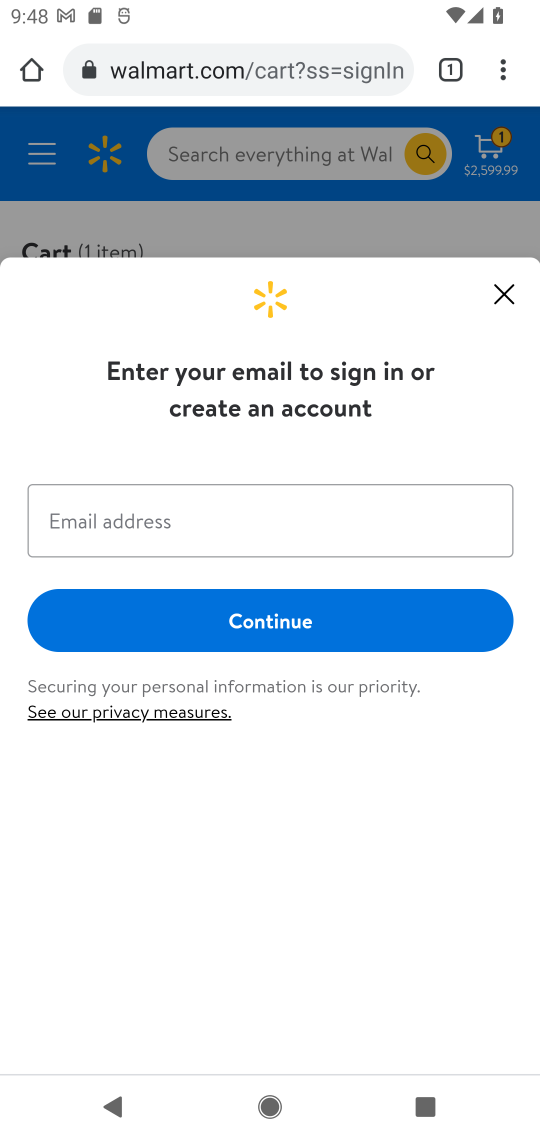
Step 43: task complete